Your task to perform on an android device: find which apps use the phone's location Image 0: 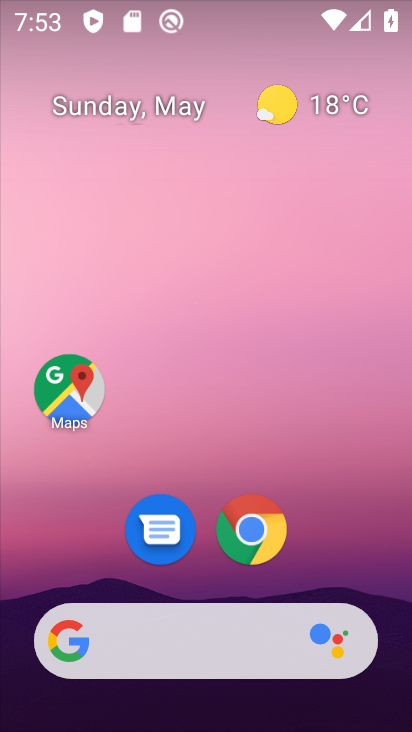
Step 0: drag from (363, 577) to (318, 717)
Your task to perform on an android device: find which apps use the phone's location Image 1: 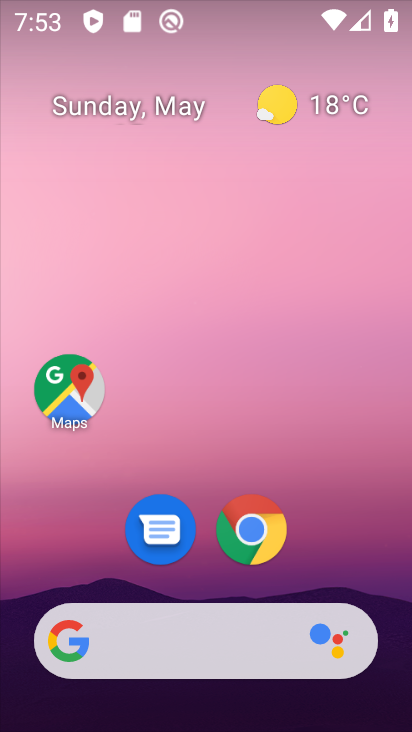
Step 1: drag from (381, 537) to (387, 21)
Your task to perform on an android device: find which apps use the phone's location Image 2: 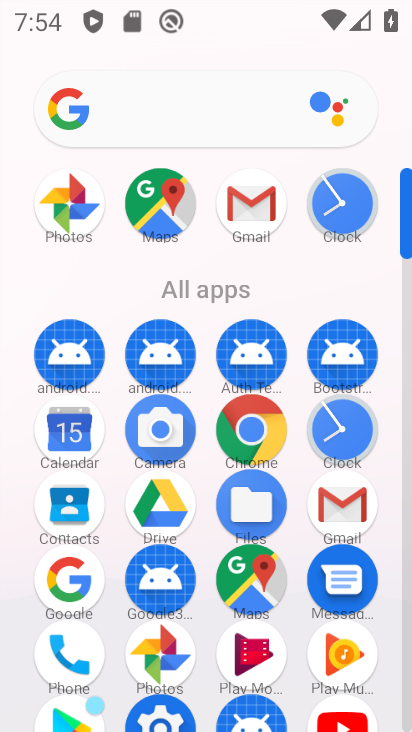
Step 2: click (410, 554)
Your task to perform on an android device: find which apps use the phone's location Image 3: 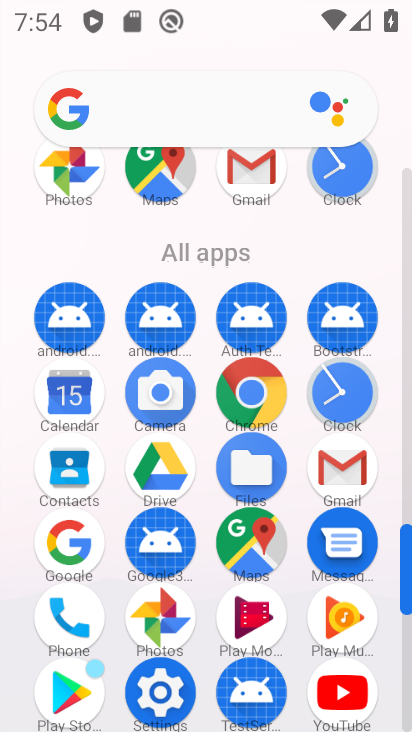
Step 3: click (150, 697)
Your task to perform on an android device: find which apps use the phone's location Image 4: 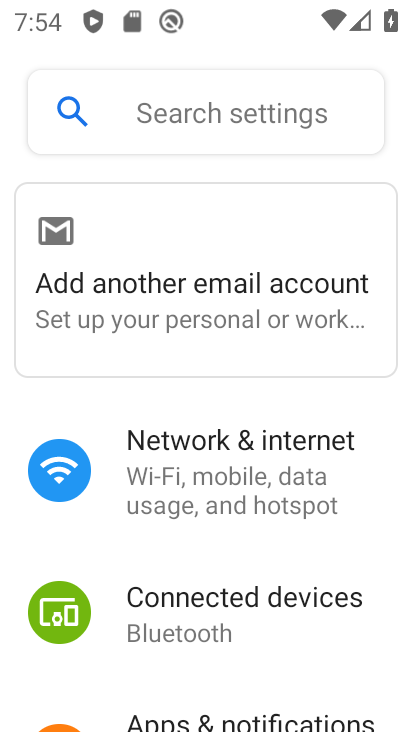
Step 4: drag from (231, 663) to (244, 130)
Your task to perform on an android device: find which apps use the phone's location Image 5: 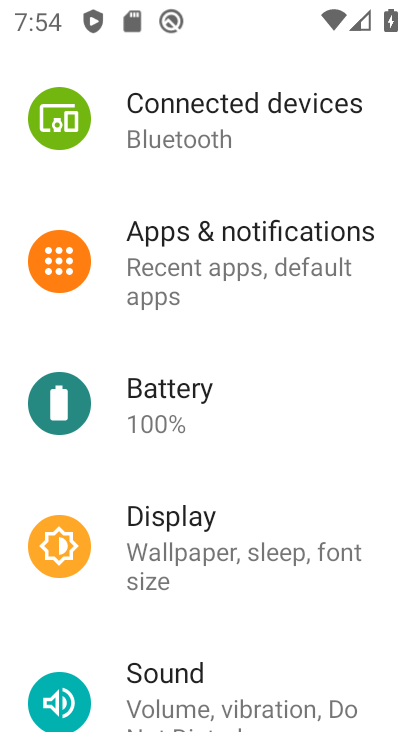
Step 5: drag from (246, 622) to (226, 205)
Your task to perform on an android device: find which apps use the phone's location Image 6: 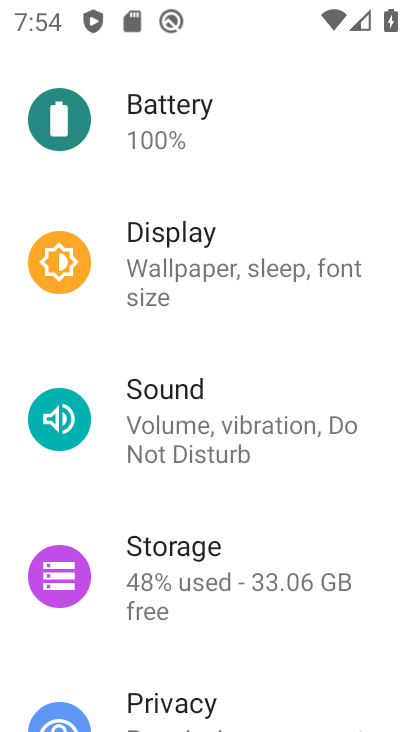
Step 6: drag from (228, 634) to (243, 303)
Your task to perform on an android device: find which apps use the phone's location Image 7: 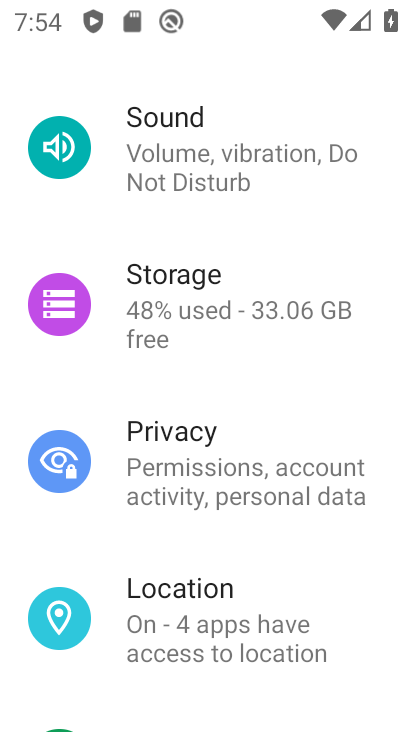
Step 7: click (191, 629)
Your task to perform on an android device: find which apps use the phone's location Image 8: 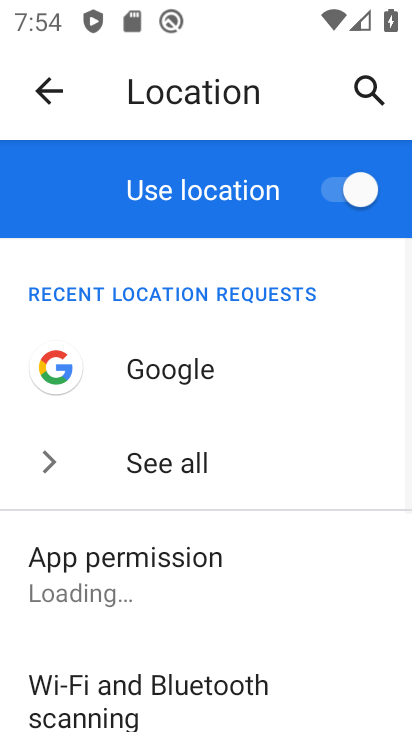
Step 8: drag from (266, 614) to (227, 151)
Your task to perform on an android device: find which apps use the phone's location Image 9: 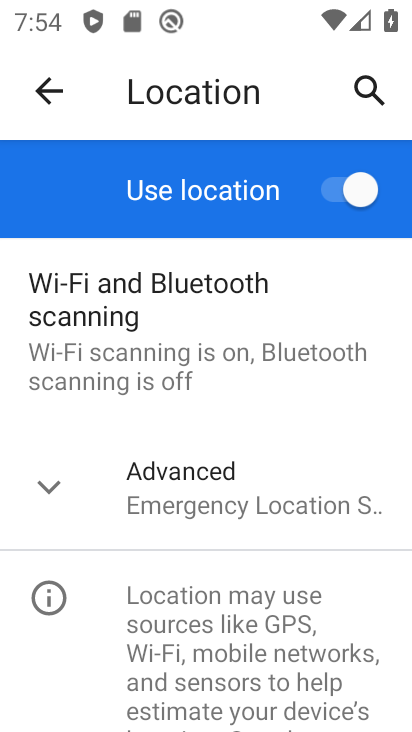
Step 9: drag from (334, 396) to (347, 608)
Your task to perform on an android device: find which apps use the phone's location Image 10: 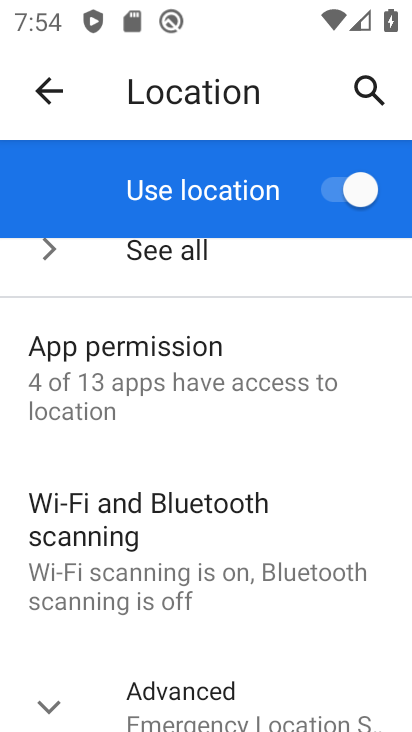
Step 10: click (108, 395)
Your task to perform on an android device: find which apps use the phone's location Image 11: 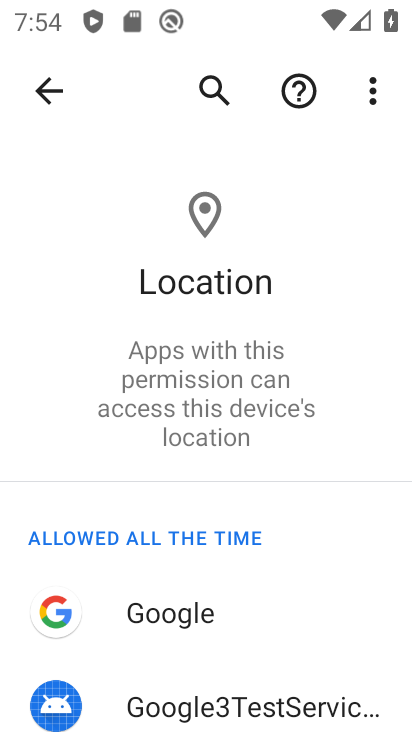
Step 11: task complete